Your task to perform on an android device: Open Youtube and go to "Your channel" Image 0: 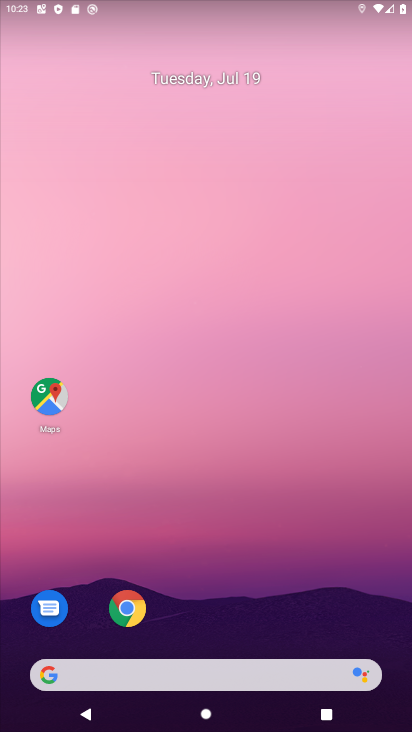
Step 0: drag from (205, 637) to (155, 120)
Your task to perform on an android device: Open Youtube and go to "Your channel" Image 1: 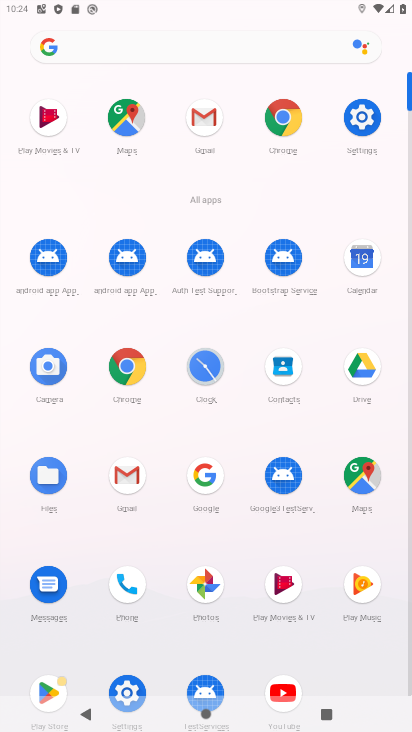
Step 1: click (276, 681)
Your task to perform on an android device: Open Youtube and go to "Your channel" Image 2: 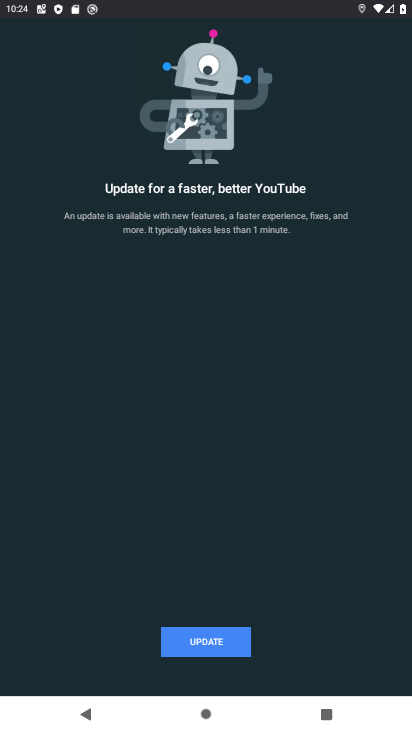
Step 2: click (198, 654)
Your task to perform on an android device: Open Youtube and go to "Your channel" Image 3: 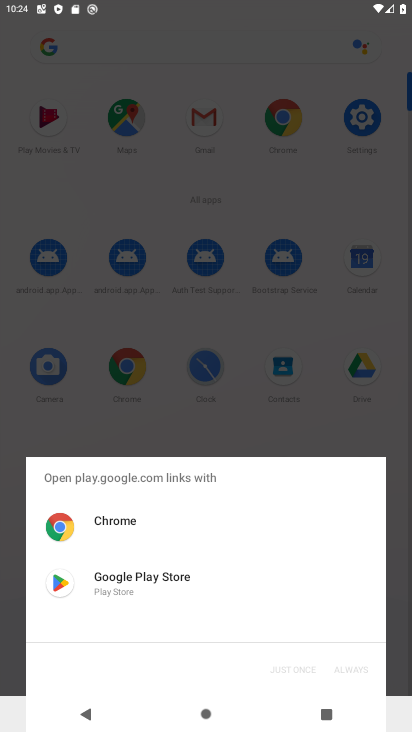
Step 3: click (138, 601)
Your task to perform on an android device: Open Youtube and go to "Your channel" Image 4: 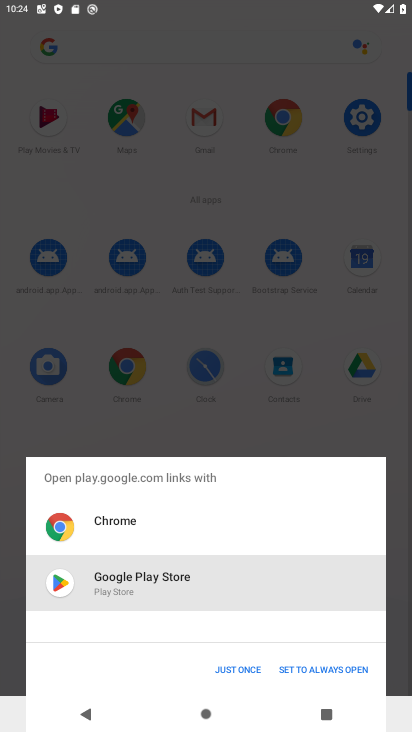
Step 4: click (214, 658)
Your task to perform on an android device: Open Youtube and go to "Your channel" Image 5: 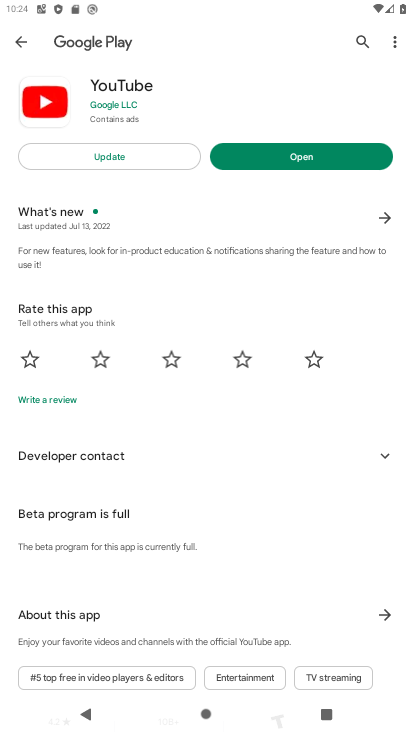
Step 5: click (149, 156)
Your task to perform on an android device: Open Youtube and go to "Your channel" Image 6: 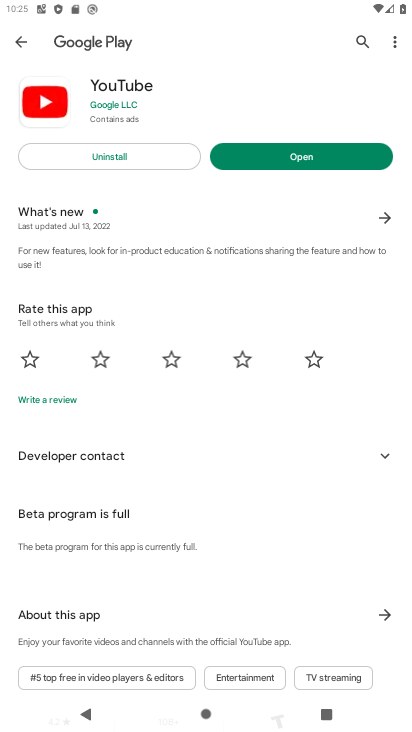
Step 6: click (334, 161)
Your task to perform on an android device: Open Youtube and go to "Your channel" Image 7: 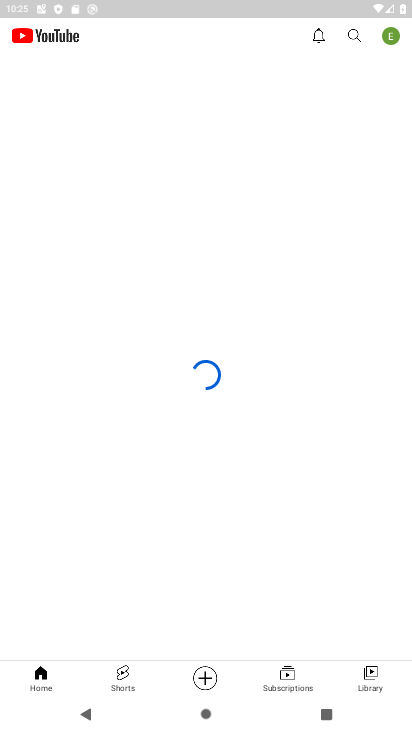
Step 7: click (396, 38)
Your task to perform on an android device: Open Youtube and go to "Your channel" Image 8: 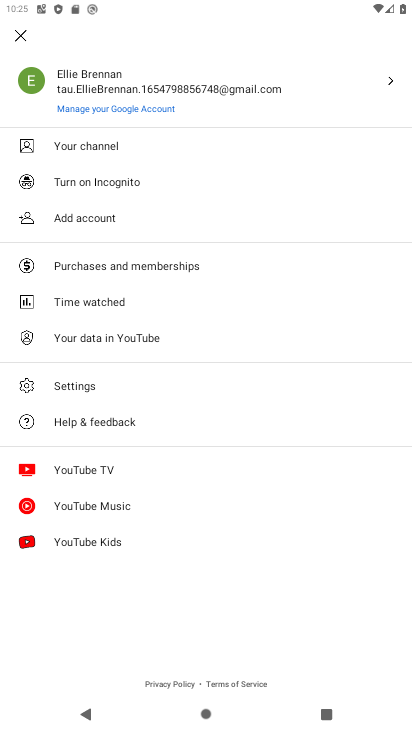
Step 8: click (96, 150)
Your task to perform on an android device: Open Youtube and go to "Your channel" Image 9: 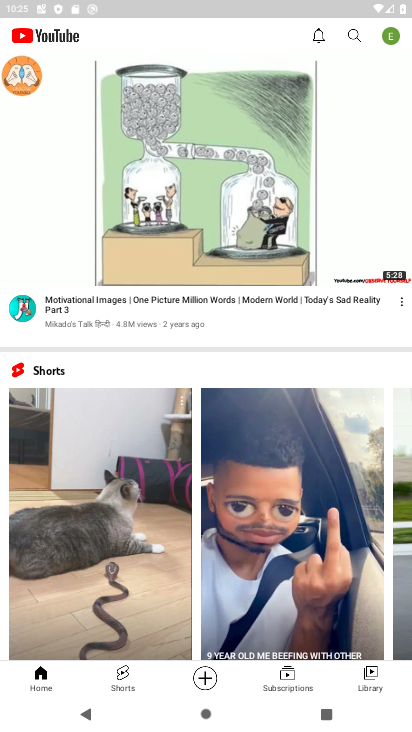
Step 9: click (394, 37)
Your task to perform on an android device: Open Youtube and go to "Your channel" Image 10: 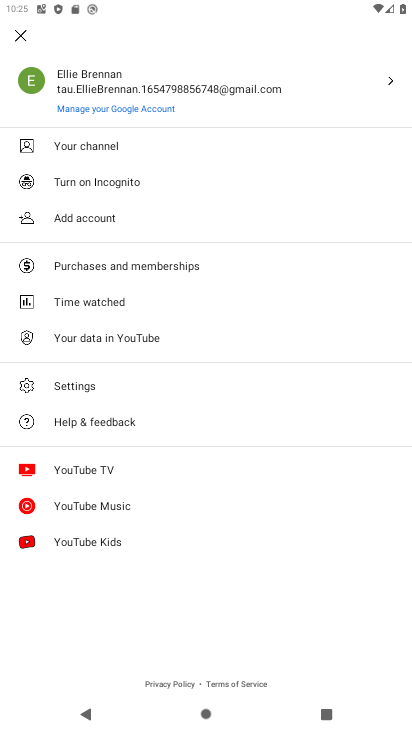
Step 10: click (82, 147)
Your task to perform on an android device: Open Youtube and go to "Your channel" Image 11: 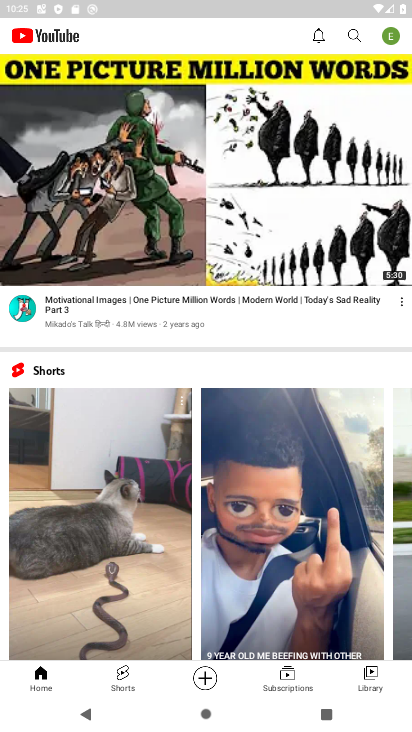
Step 11: task complete